Your task to perform on an android device: Show me productivity apps on the Play Store Image 0: 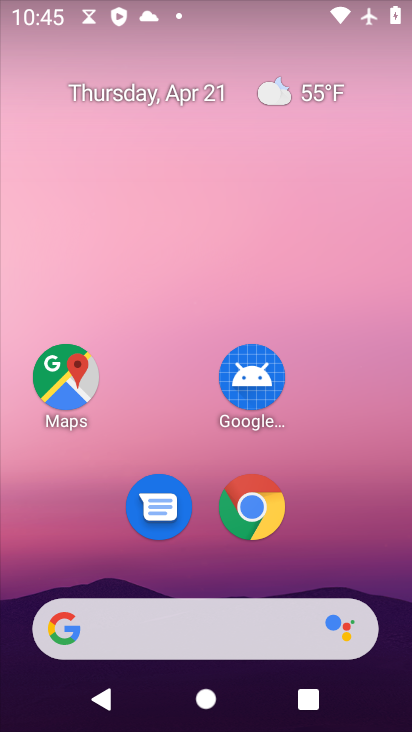
Step 0: drag from (364, 521) to (358, 209)
Your task to perform on an android device: Show me productivity apps on the Play Store Image 1: 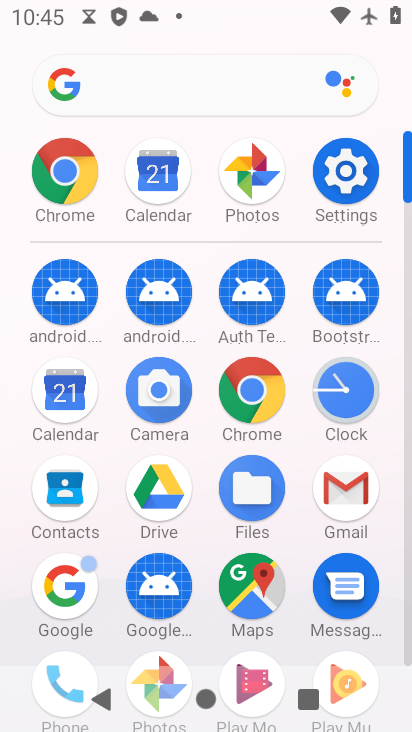
Step 1: drag from (204, 641) to (216, 397)
Your task to perform on an android device: Show me productivity apps on the Play Store Image 2: 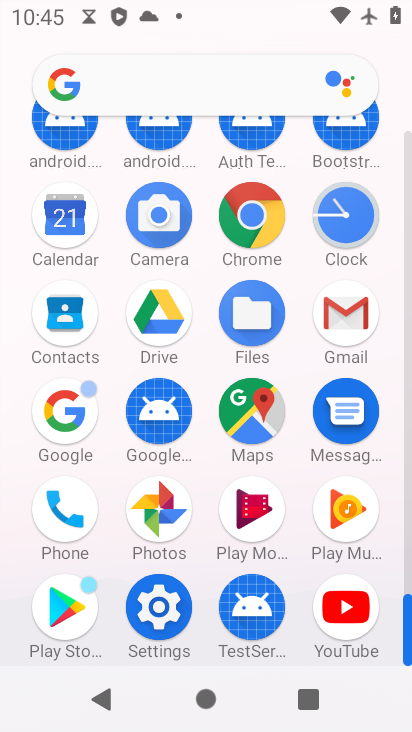
Step 2: click (59, 601)
Your task to perform on an android device: Show me productivity apps on the Play Store Image 3: 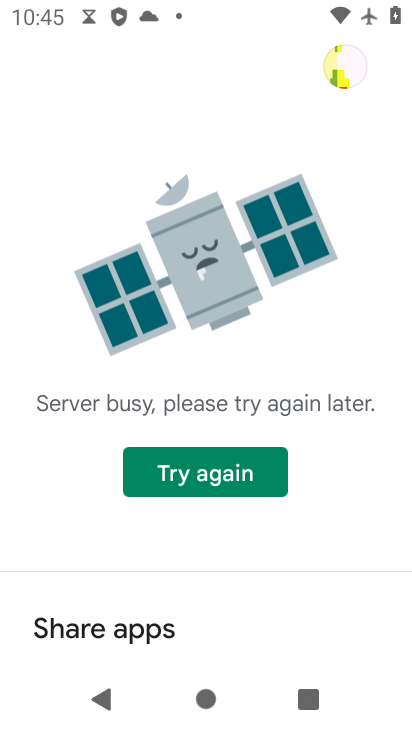
Step 3: task complete